Your task to perform on an android device: turn smart compose on in the gmail app Image 0: 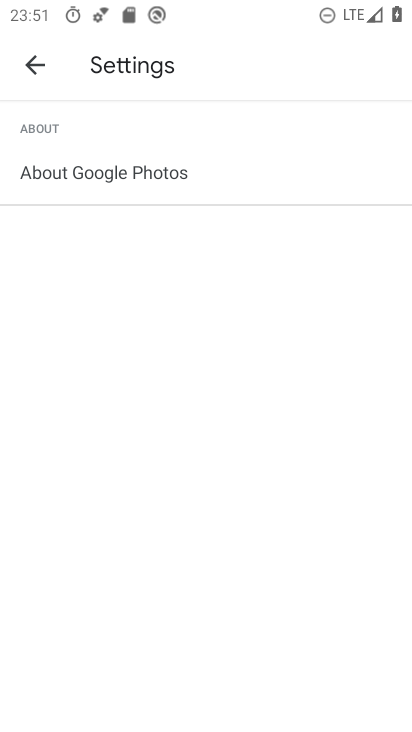
Step 0: press home button
Your task to perform on an android device: turn smart compose on in the gmail app Image 1: 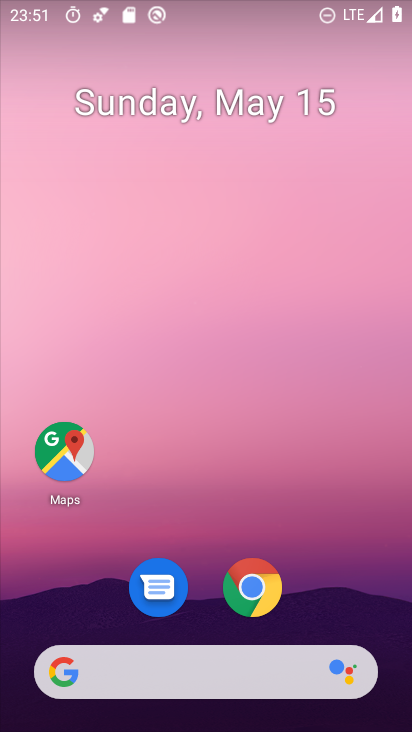
Step 1: drag from (193, 632) to (216, 106)
Your task to perform on an android device: turn smart compose on in the gmail app Image 2: 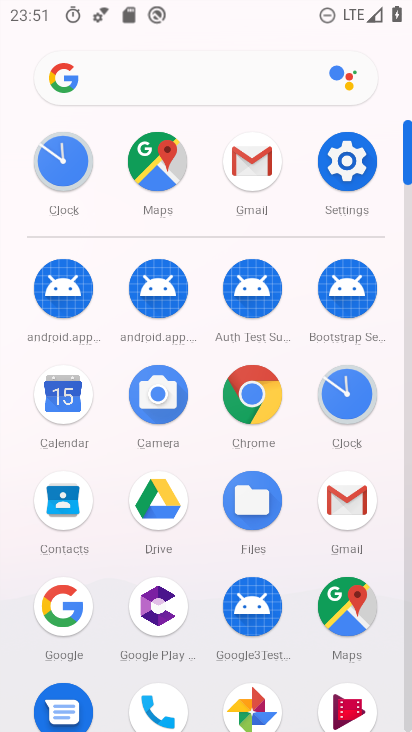
Step 2: click (243, 158)
Your task to perform on an android device: turn smart compose on in the gmail app Image 3: 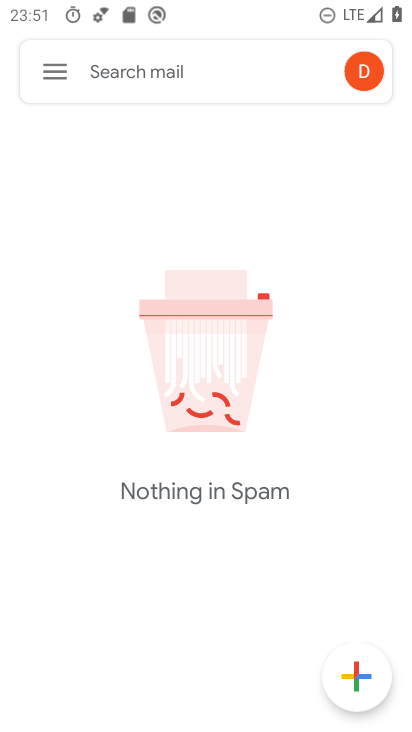
Step 3: click (53, 73)
Your task to perform on an android device: turn smart compose on in the gmail app Image 4: 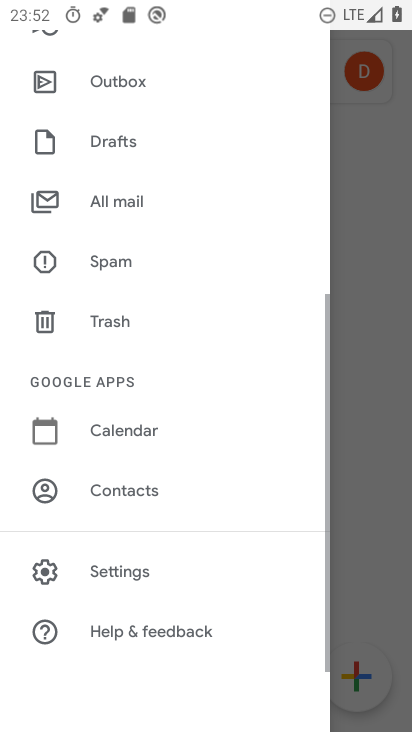
Step 4: click (141, 574)
Your task to perform on an android device: turn smart compose on in the gmail app Image 5: 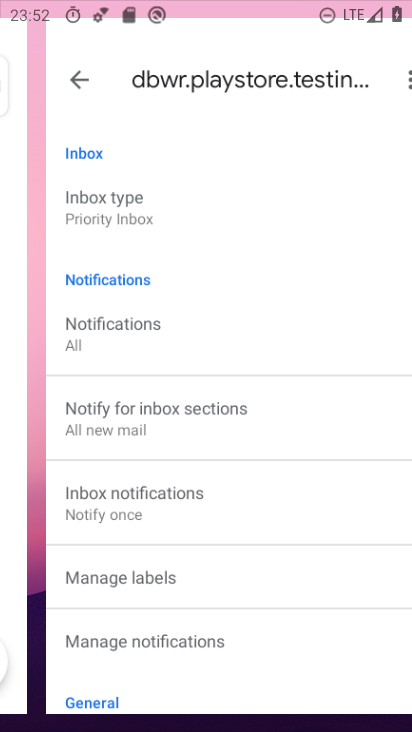
Step 5: task complete